Your task to perform on an android device: Open CNN.com Image 0: 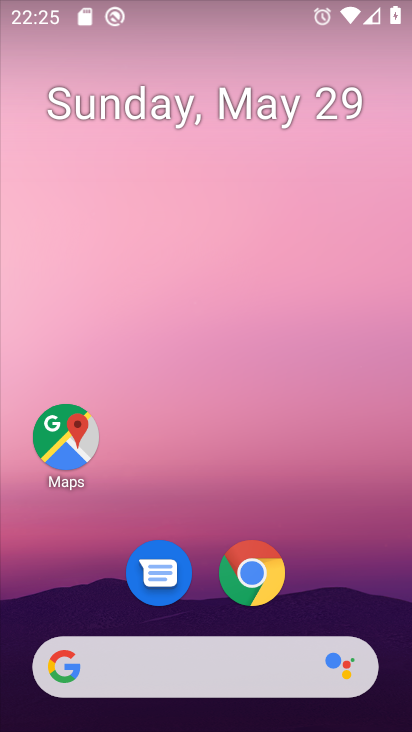
Step 0: click (254, 652)
Your task to perform on an android device: Open CNN.com Image 1: 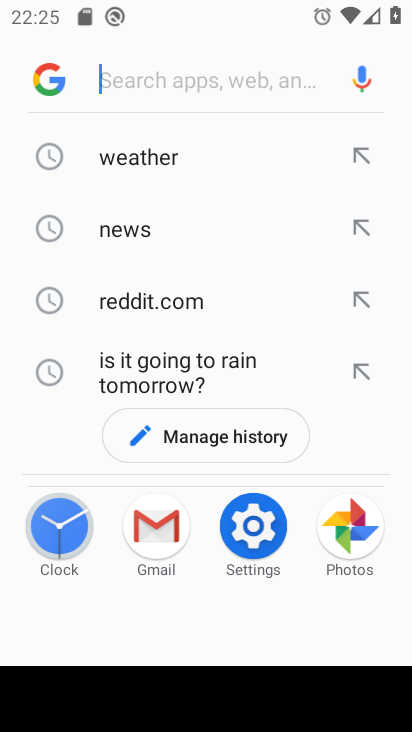
Step 1: type "cnn.com"
Your task to perform on an android device: Open CNN.com Image 2: 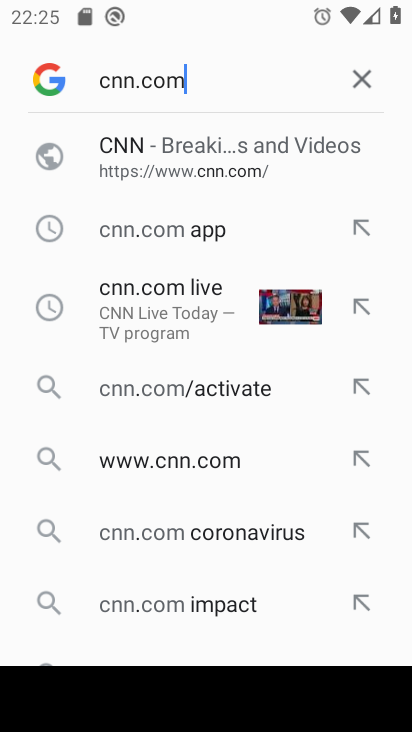
Step 2: click (161, 152)
Your task to perform on an android device: Open CNN.com Image 3: 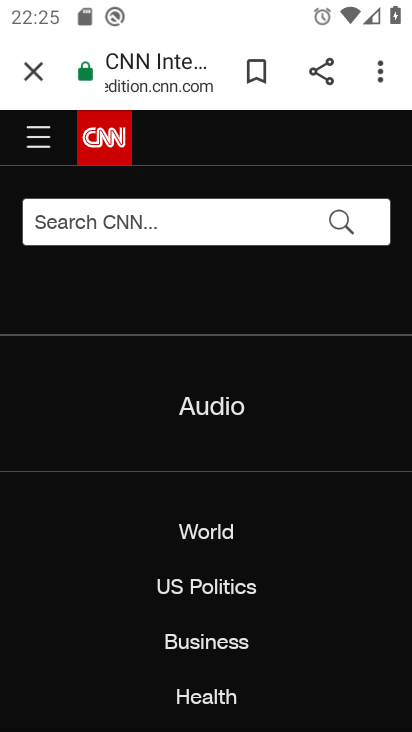
Step 3: task complete